Your task to perform on an android device: turn on the 12-hour format for clock Image 0: 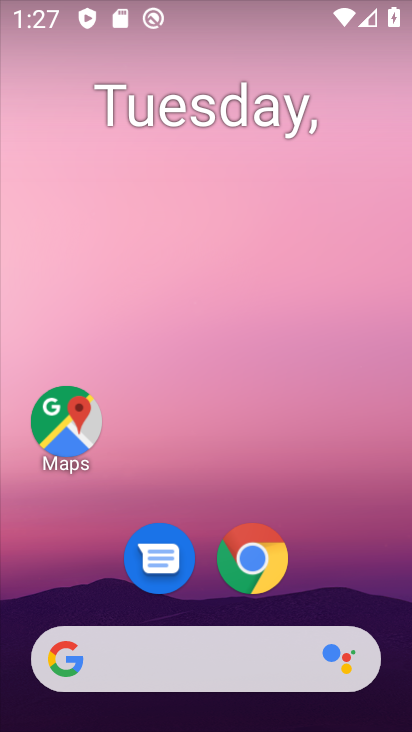
Step 0: drag from (140, 567) to (269, 82)
Your task to perform on an android device: turn on the 12-hour format for clock Image 1: 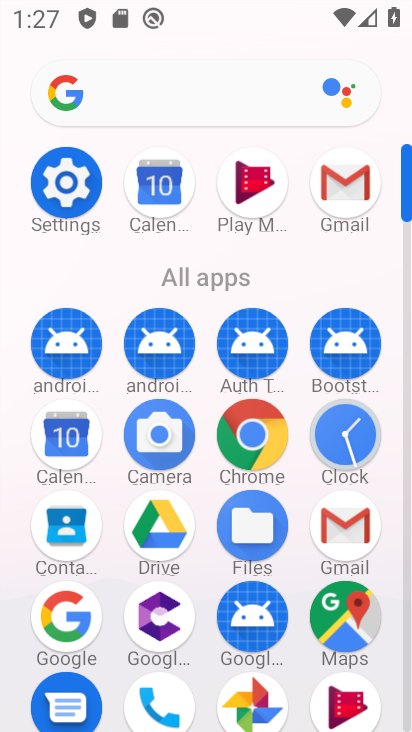
Step 1: click (346, 434)
Your task to perform on an android device: turn on the 12-hour format for clock Image 2: 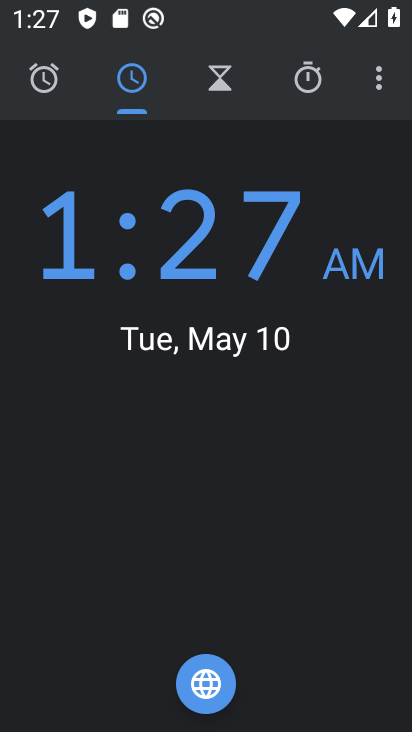
Step 2: click (378, 82)
Your task to perform on an android device: turn on the 12-hour format for clock Image 3: 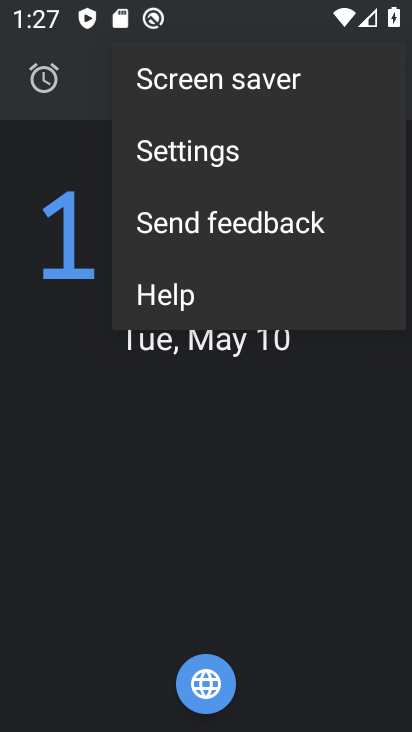
Step 3: click (207, 159)
Your task to perform on an android device: turn on the 12-hour format for clock Image 4: 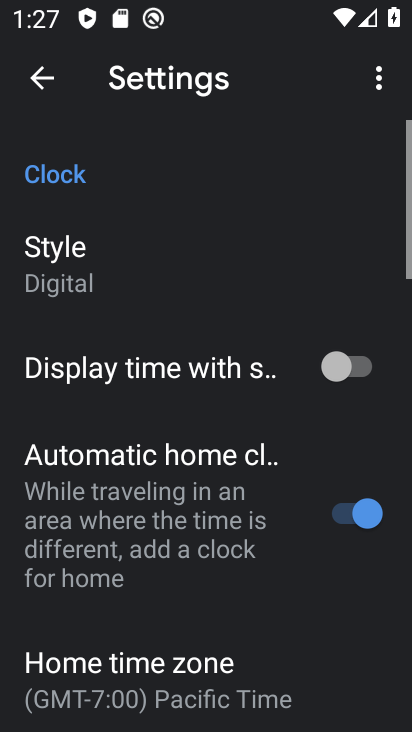
Step 4: drag from (134, 650) to (303, 81)
Your task to perform on an android device: turn on the 12-hour format for clock Image 5: 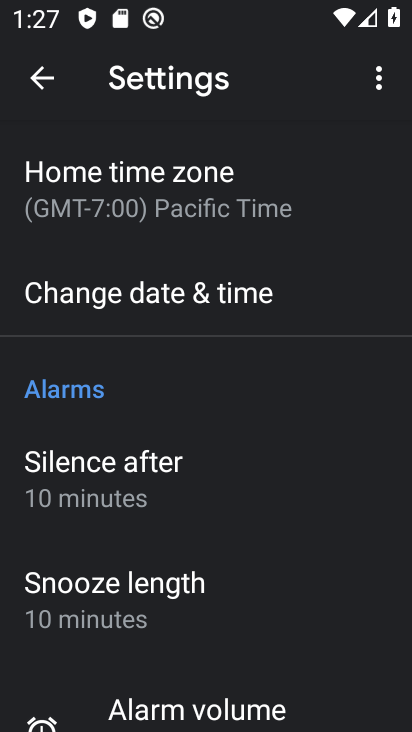
Step 5: click (132, 298)
Your task to perform on an android device: turn on the 12-hour format for clock Image 6: 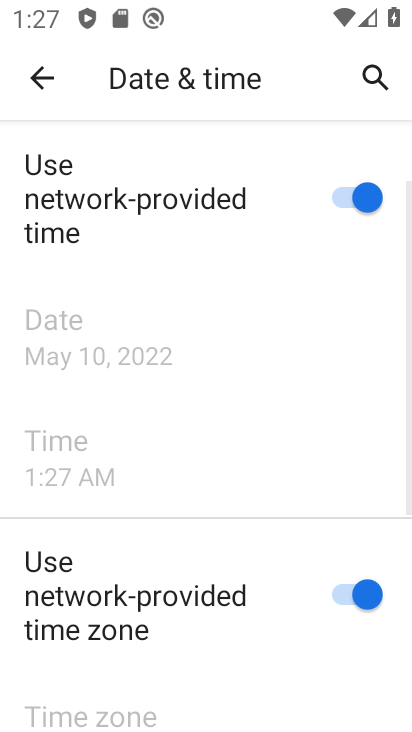
Step 6: task complete